Your task to perform on an android device: change the clock style Image 0: 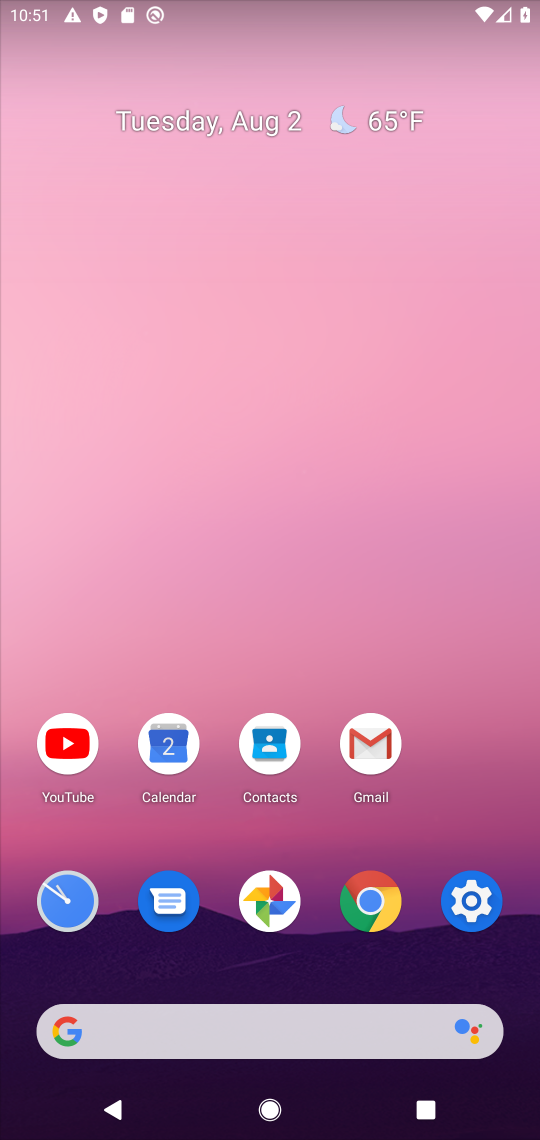
Step 0: click (65, 904)
Your task to perform on an android device: change the clock style Image 1: 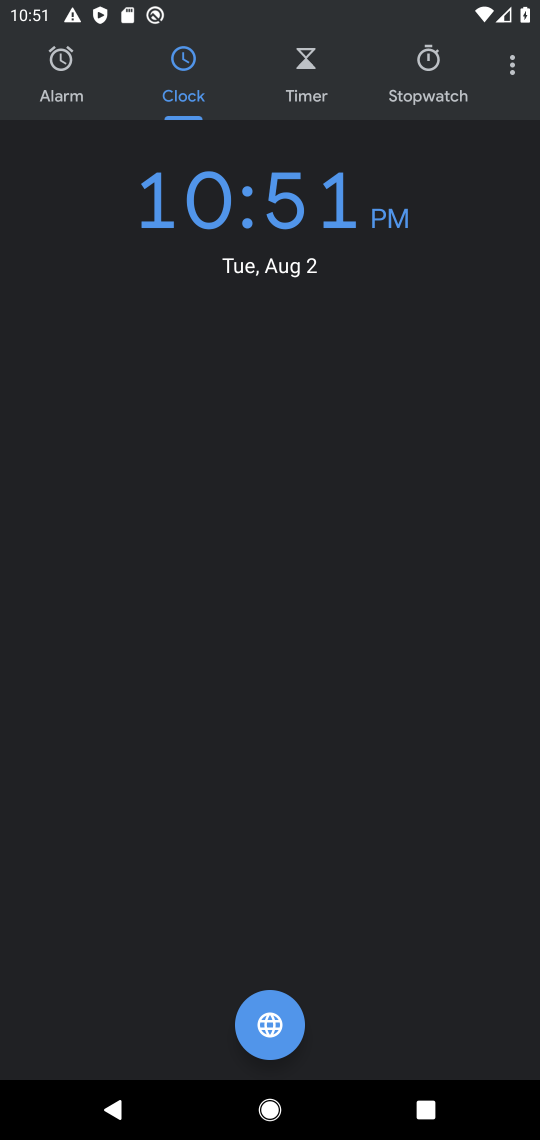
Step 1: click (513, 59)
Your task to perform on an android device: change the clock style Image 2: 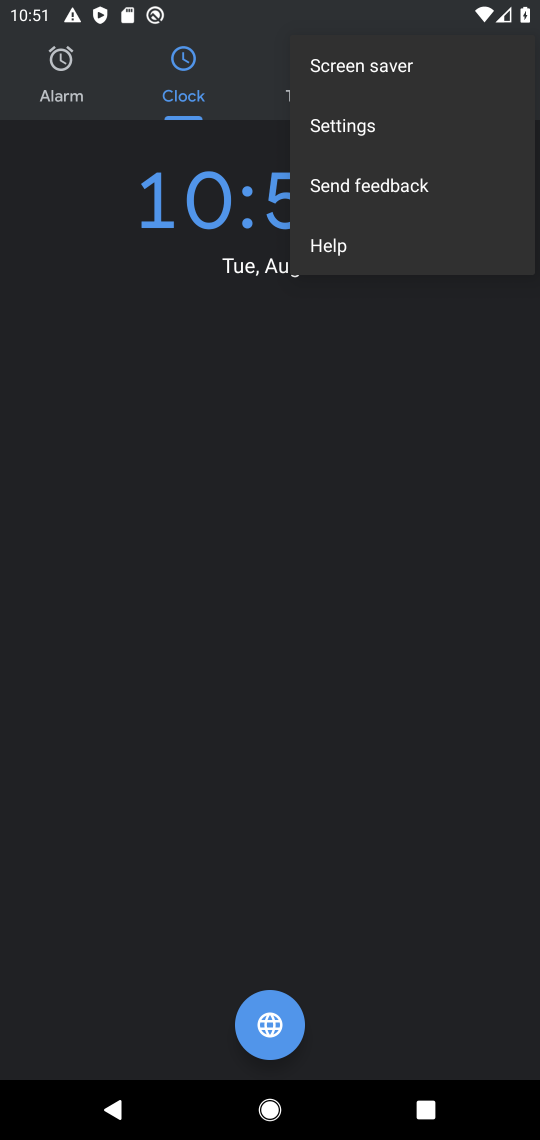
Step 2: click (361, 131)
Your task to perform on an android device: change the clock style Image 3: 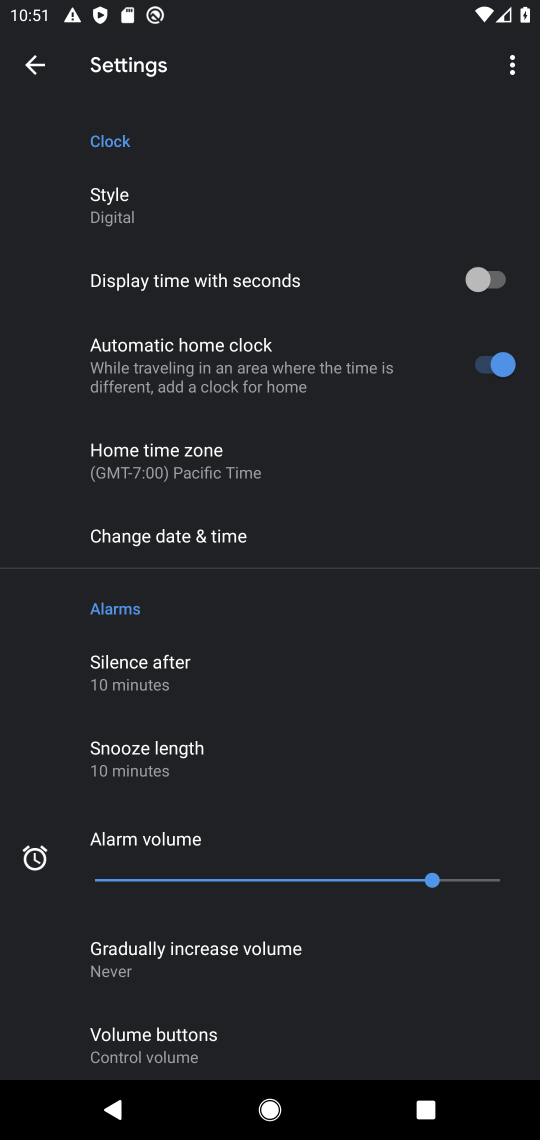
Step 3: task complete